Your task to perform on an android device: turn off notifications settings in the gmail app Image 0: 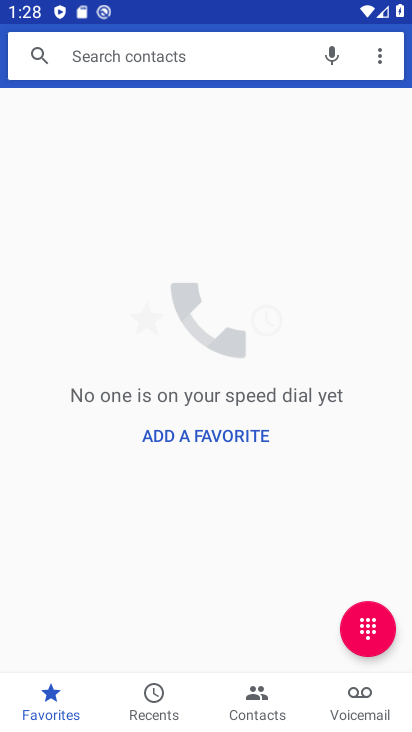
Step 0: drag from (361, 618) to (348, 384)
Your task to perform on an android device: turn off notifications settings in the gmail app Image 1: 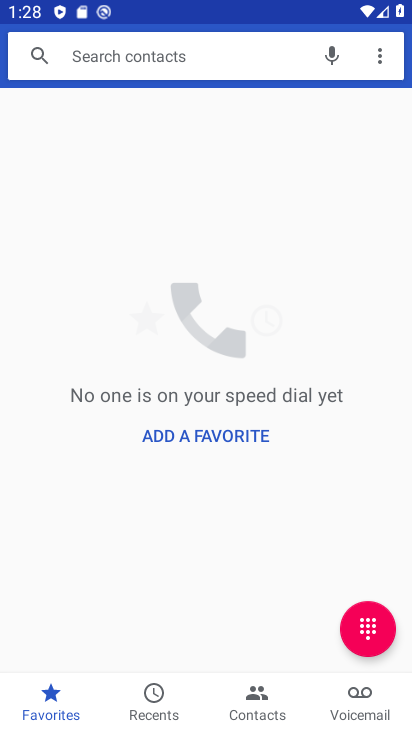
Step 1: press home button
Your task to perform on an android device: turn off notifications settings in the gmail app Image 2: 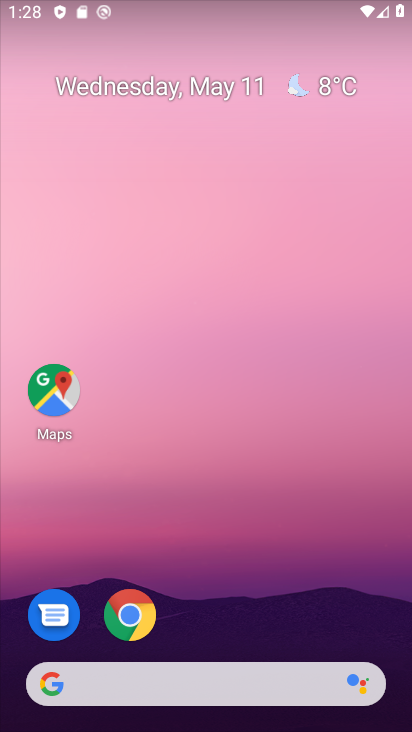
Step 2: drag from (366, 588) to (351, 210)
Your task to perform on an android device: turn off notifications settings in the gmail app Image 3: 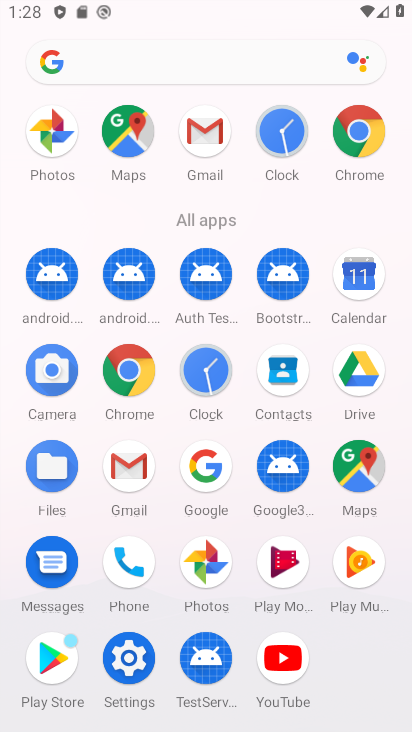
Step 3: click (135, 470)
Your task to perform on an android device: turn off notifications settings in the gmail app Image 4: 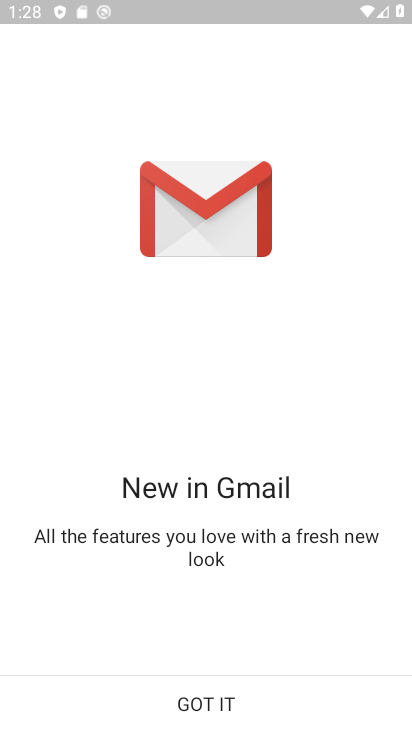
Step 4: click (217, 701)
Your task to perform on an android device: turn off notifications settings in the gmail app Image 5: 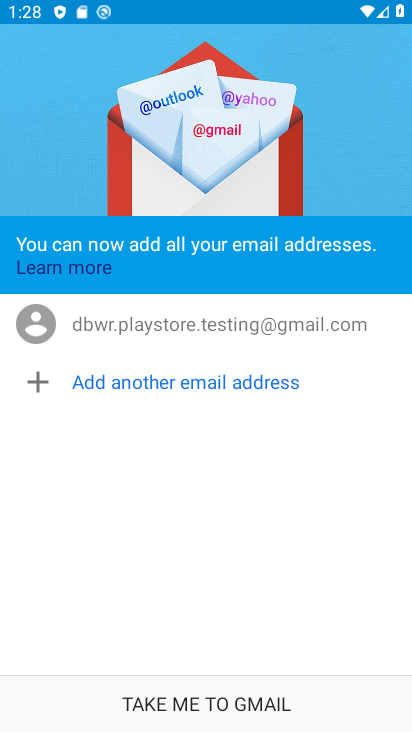
Step 5: click (217, 701)
Your task to perform on an android device: turn off notifications settings in the gmail app Image 6: 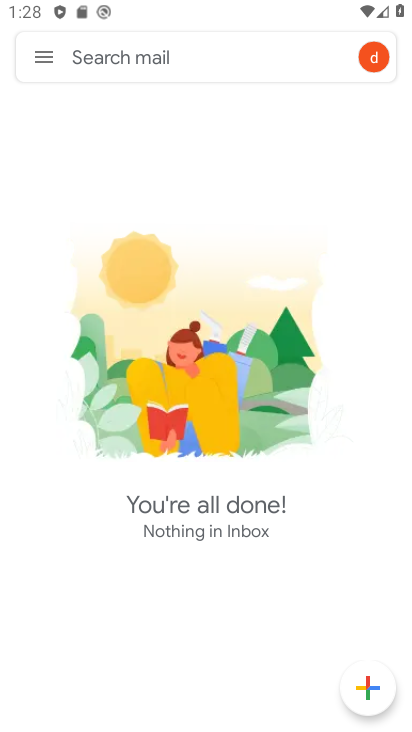
Step 6: press home button
Your task to perform on an android device: turn off notifications settings in the gmail app Image 7: 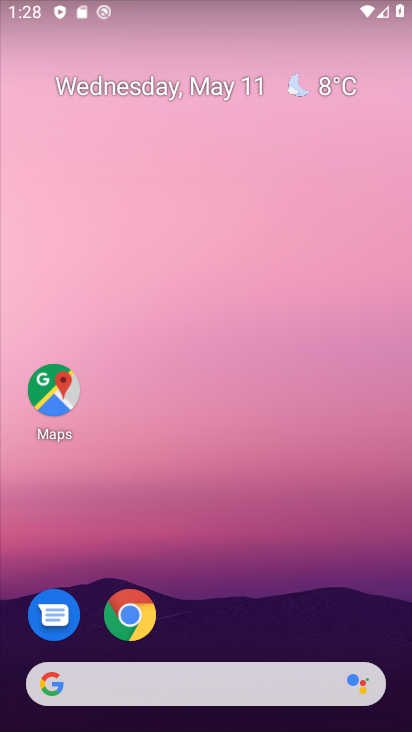
Step 7: drag from (328, 638) to (323, 255)
Your task to perform on an android device: turn off notifications settings in the gmail app Image 8: 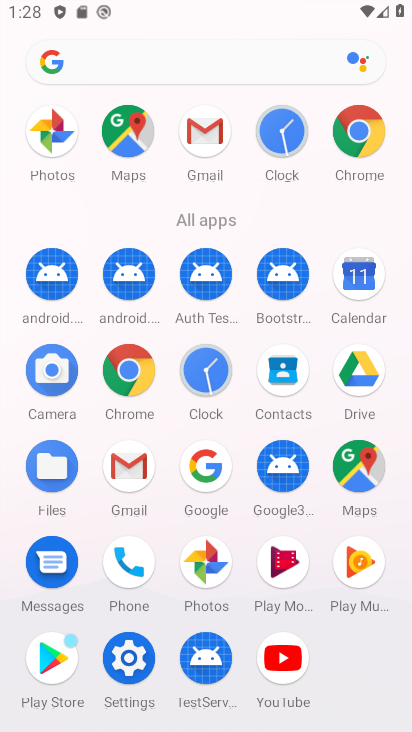
Step 8: click (130, 475)
Your task to perform on an android device: turn off notifications settings in the gmail app Image 9: 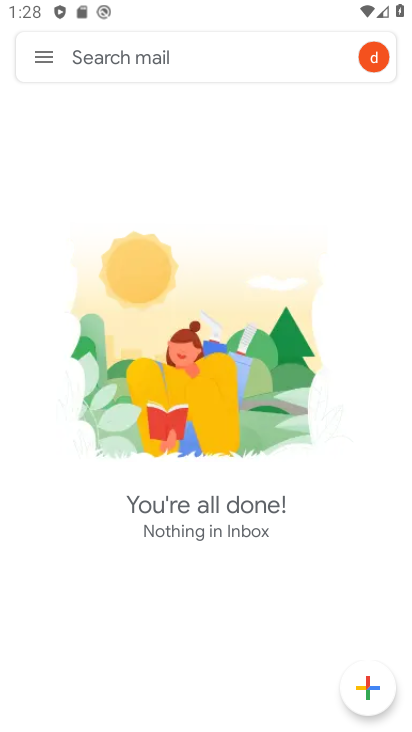
Step 9: click (41, 57)
Your task to perform on an android device: turn off notifications settings in the gmail app Image 10: 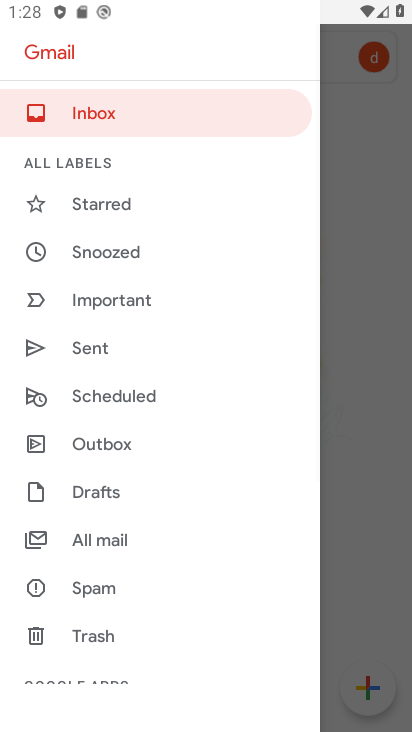
Step 10: drag from (173, 609) to (191, 291)
Your task to perform on an android device: turn off notifications settings in the gmail app Image 11: 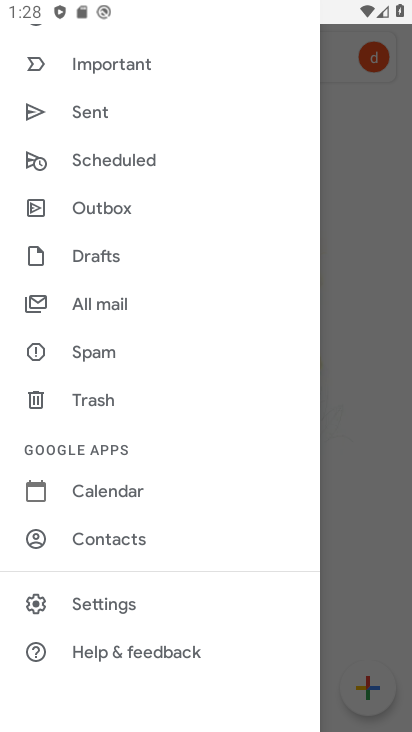
Step 11: click (150, 601)
Your task to perform on an android device: turn off notifications settings in the gmail app Image 12: 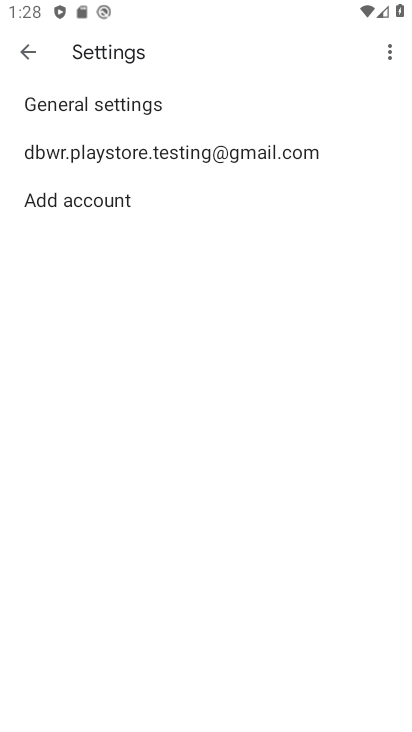
Step 12: click (245, 144)
Your task to perform on an android device: turn off notifications settings in the gmail app Image 13: 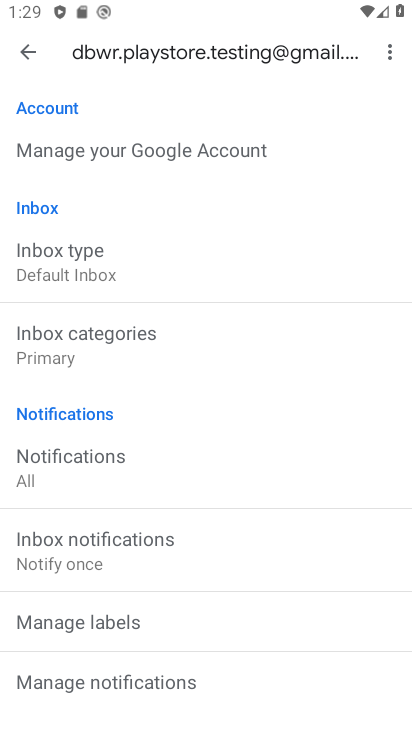
Step 13: drag from (217, 614) to (235, 315)
Your task to perform on an android device: turn off notifications settings in the gmail app Image 14: 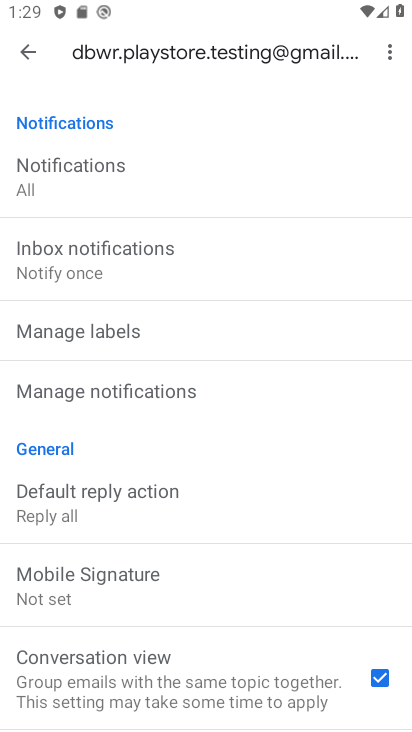
Step 14: click (119, 182)
Your task to perform on an android device: turn off notifications settings in the gmail app Image 15: 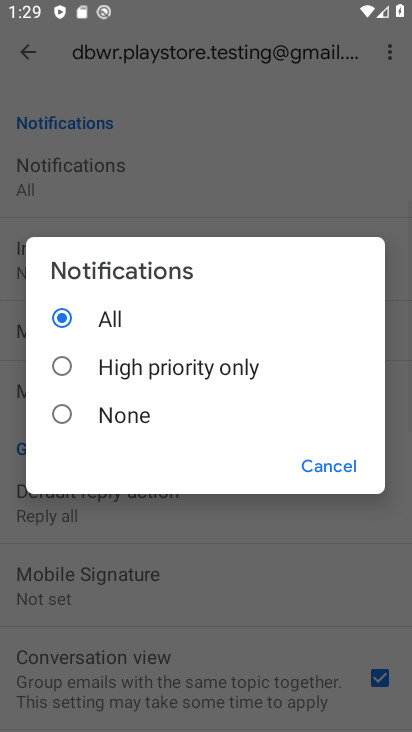
Step 15: click (143, 425)
Your task to perform on an android device: turn off notifications settings in the gmail app Image 16: 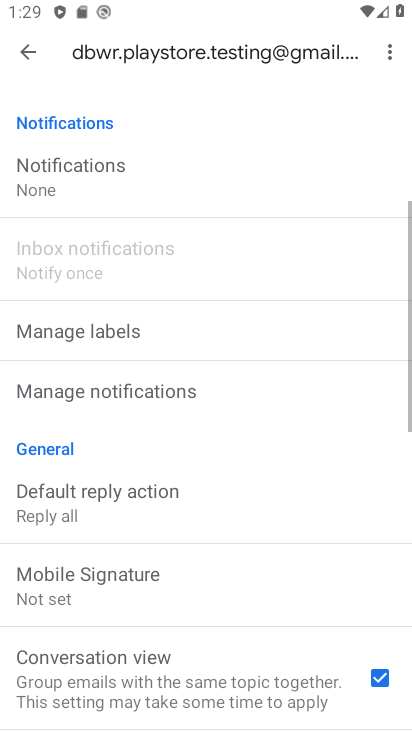
Step 16: task complete